Your task to perform on an android device: Open the calendar and show me this week's events? Image 0: 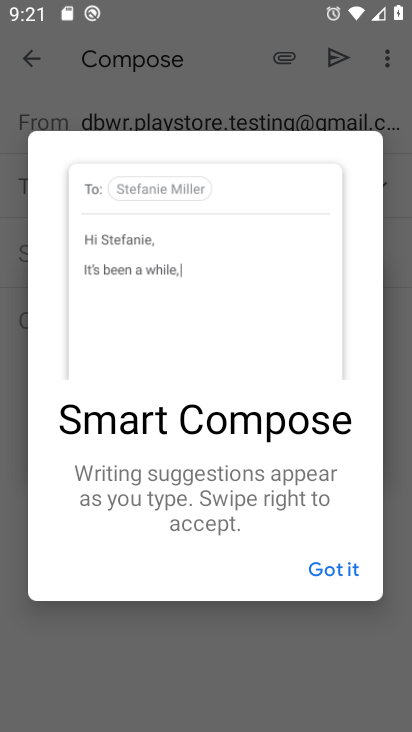
Step 0: press home button
Your task to perform on an android device: Open the calendar and show me this week's events? Image 1: 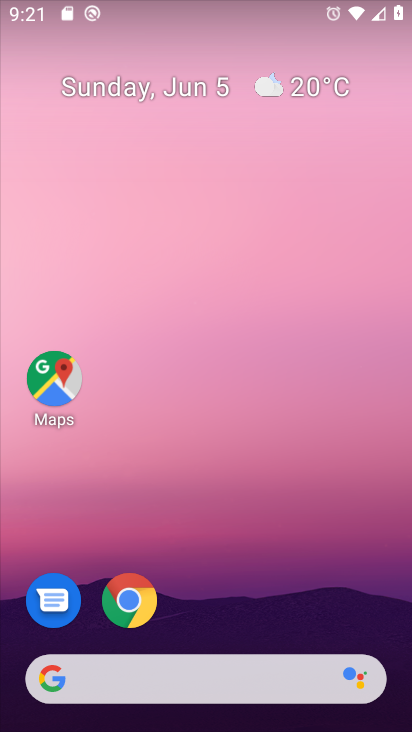
Step 1: drag from (243, 609) to (252, 147)
Your task to perform on an android device: Open the calendar and show me this week's events? Image 2: 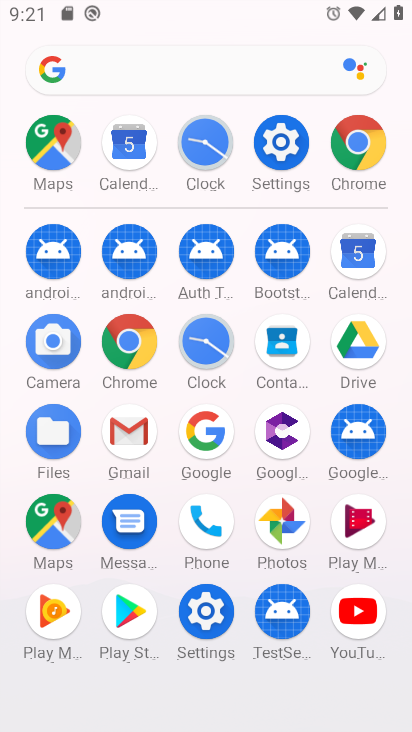
Step 2: click (141, 141)
Your task to perform on an android device: Open the calendar and show me this week's events? Image 3: 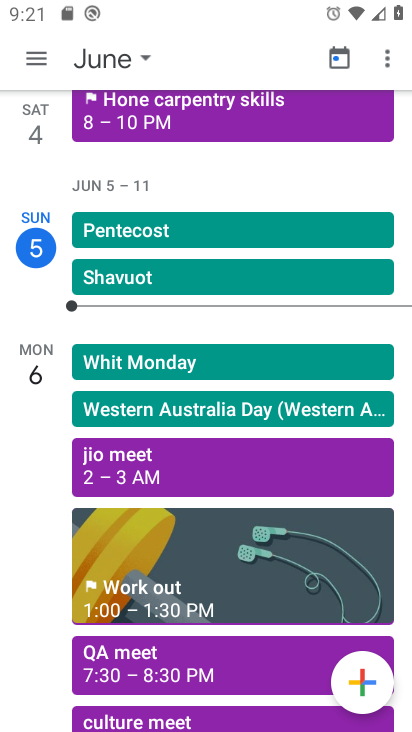
Step 3: click (37, 59)
Your task to perform on an android device: Open the calendar and show me this week's events? Image 4: 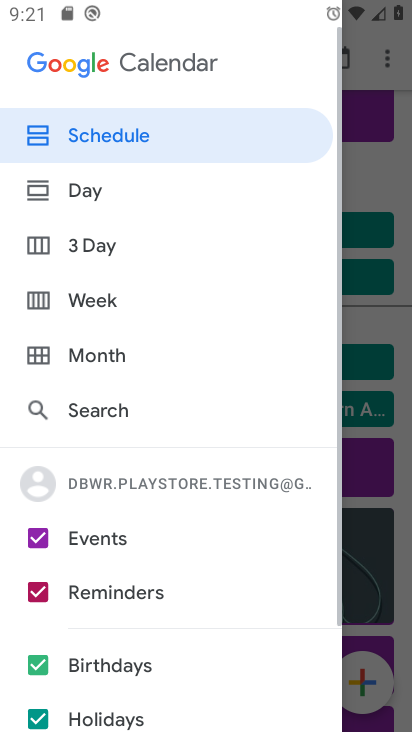
Step 4: click (38, 295)
Your task to perform on an android device: Open the calendar and show me this week's events? Image 5: 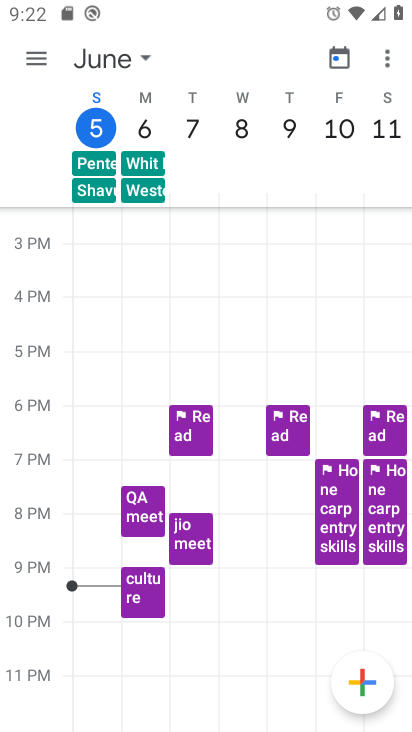
Step 5: task complete